Your task to perform on an android device: toggle improve location accuracy Image 0: 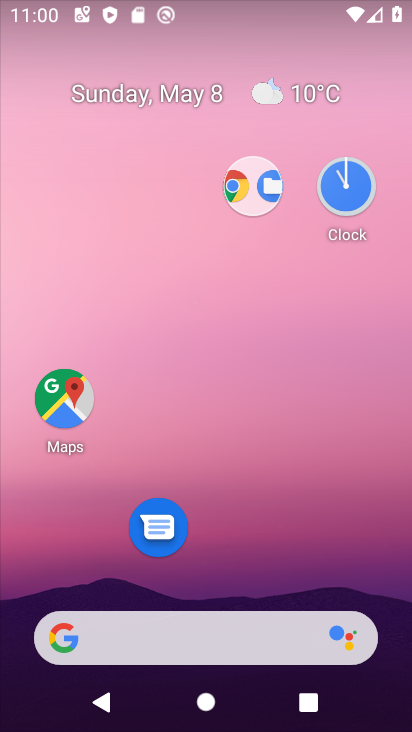
Step 0: drag from (199, 436) to (239, 70)
Your task to perform on an android device: toggle improve location accuracy Image 1: 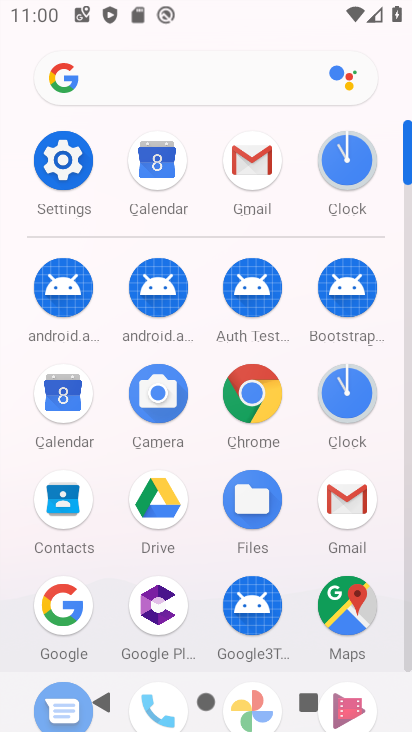
Step 1: drag from (181, 445) to (209, 134)
Your task to perform on an android device: toggle improve location accuracy Image 2: 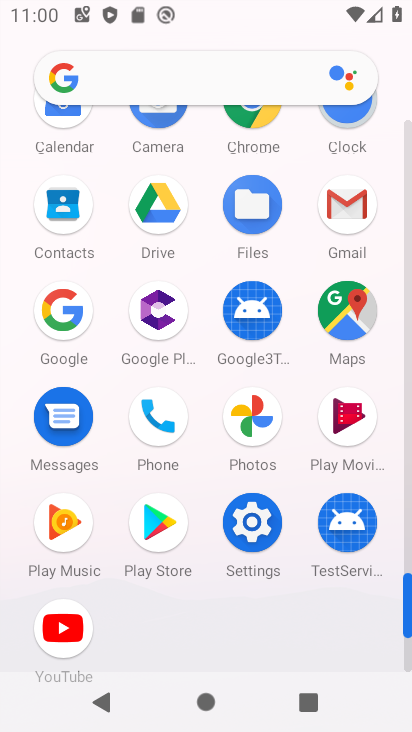
Step 2: click (336, 300)
Your task to perform on an android device: toggle improve location accuracy Image 3: 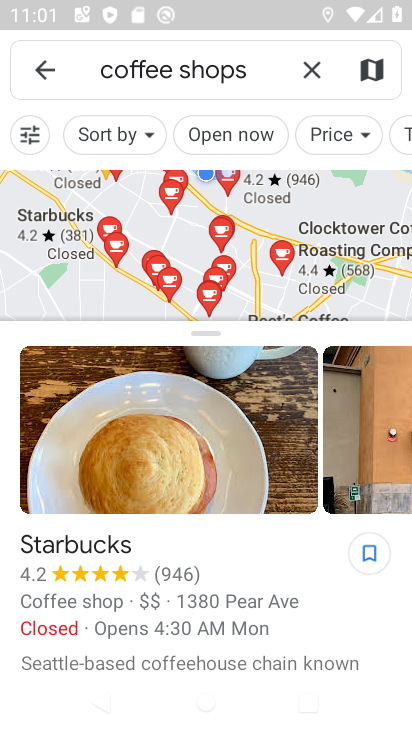
Step 3: click (40, 66)
Your task to perform on an android device: toggle improve location accuracy Image 4: 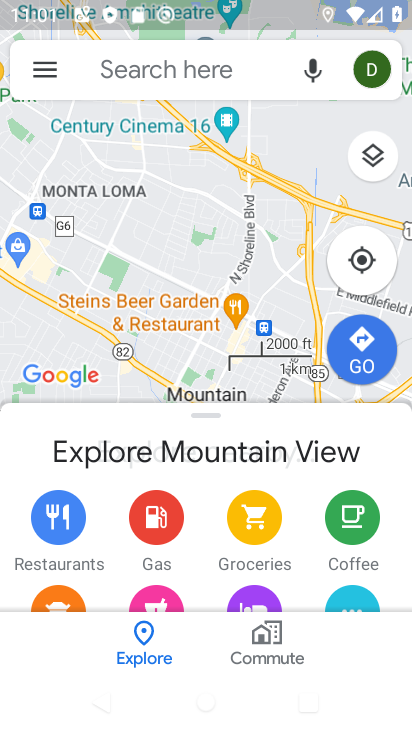
Step 4: click (40, 66)
Your task to perform on an android device: toggle improve location accuracy Image 5: 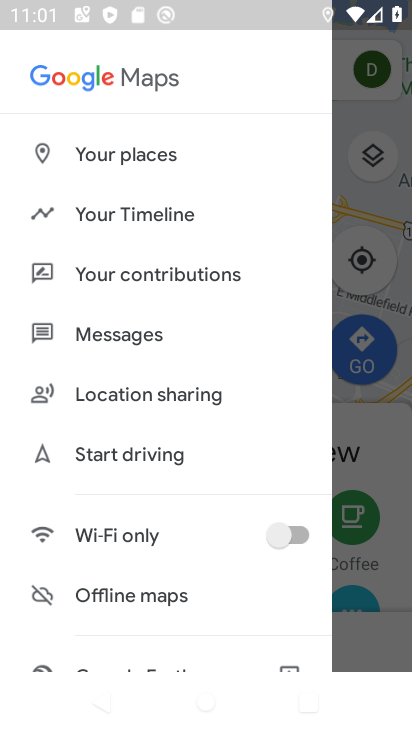
Step 5: drag from (178, 387) to (165, 188)
Your task to perform on an android device: toggle improve location accuracy Image 6: 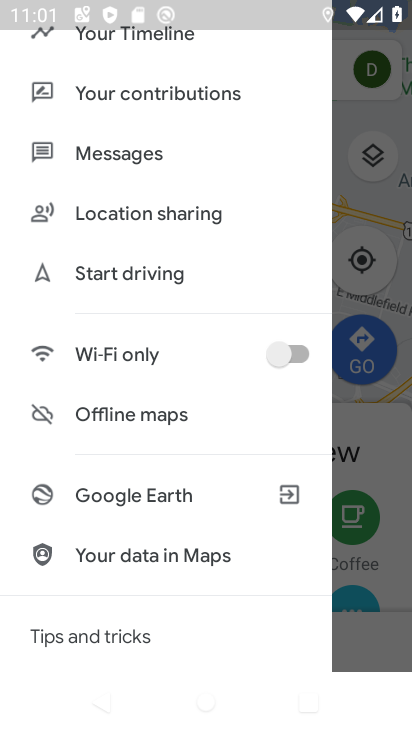
Step 6: drag from (190, 510) to (185, 171)
Your task to perform on an android device: toggle improve location accuracy Image 7: 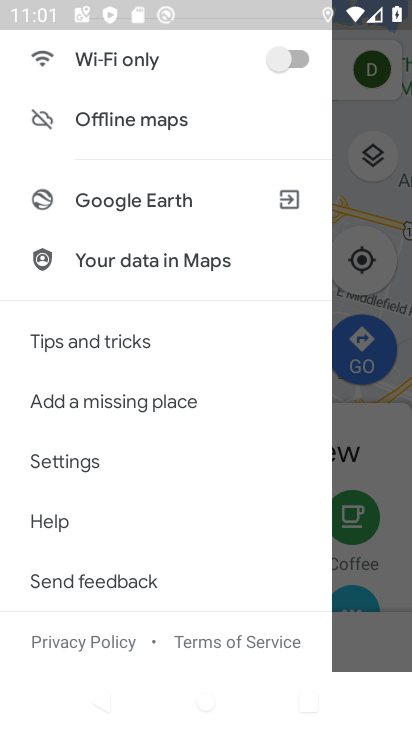
Step 7: drag from (159, 555) to (162, 54)
Your task to perform on an android device: toggle improve location accuracy Image 8: 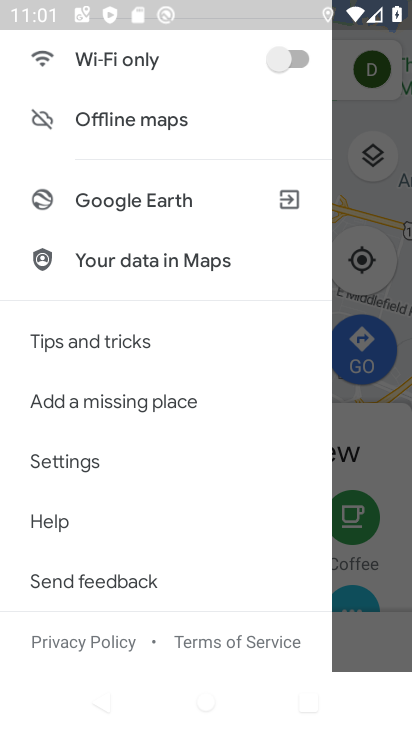
Step 8: click (178, 454)
Your task to perform on an android device: toggle improve location accuracy Image 9: 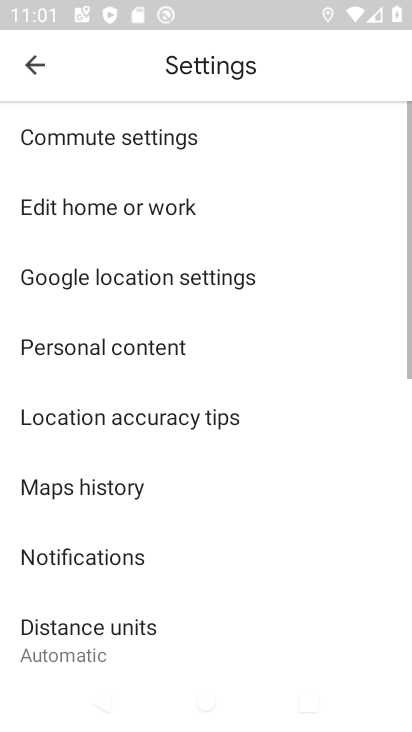
Step 9: drag from (180, 467) to (205, 108)
Your task to perform on an android device: toggle improve location accuracy Image 10: 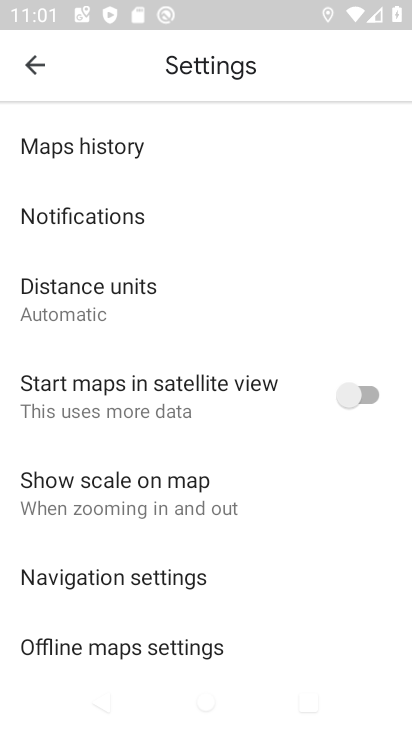
Step 10: drag from (241, 551) to (272, 133)
Your task to perform on an android device: toggle improve location accuracy Image 11: 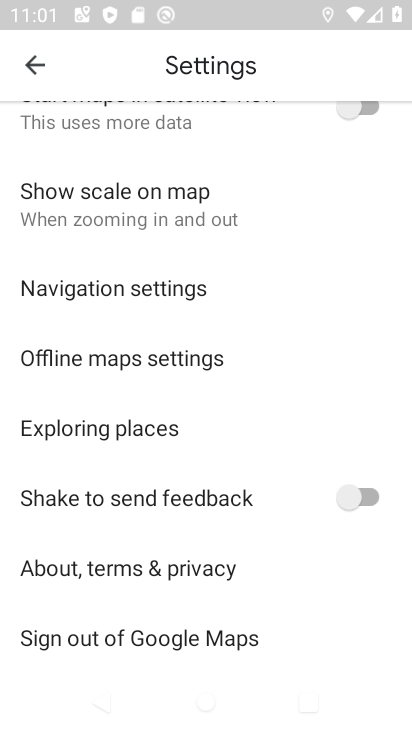
Step 11: drag from (245, 546) to (272, 3)
Your task to perform on an android device: toggle improve location accuracy Image 12: 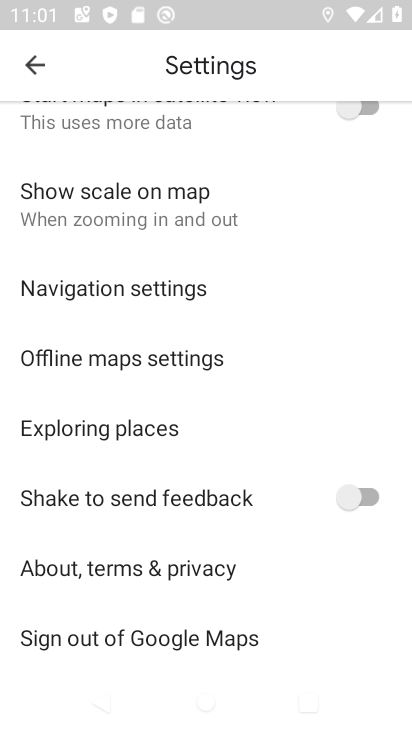
Step 12: click (32, 66)
Your task to perform on an android device: toggle improve location accuracy Image 13: 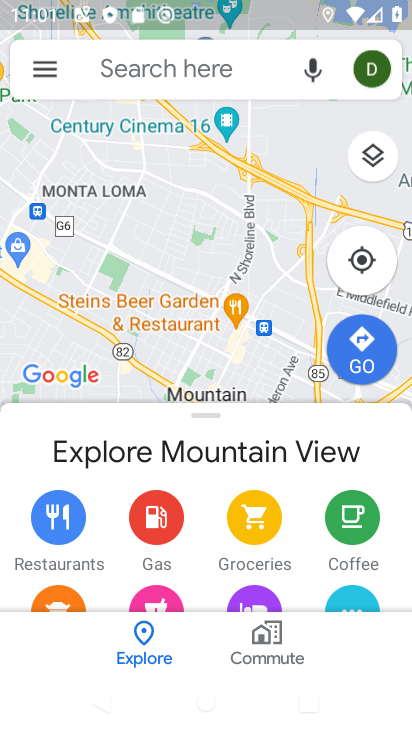
Step 13: click (32, 66)
Your task to perform on an android device: toggle improve location accuracy Image 14: 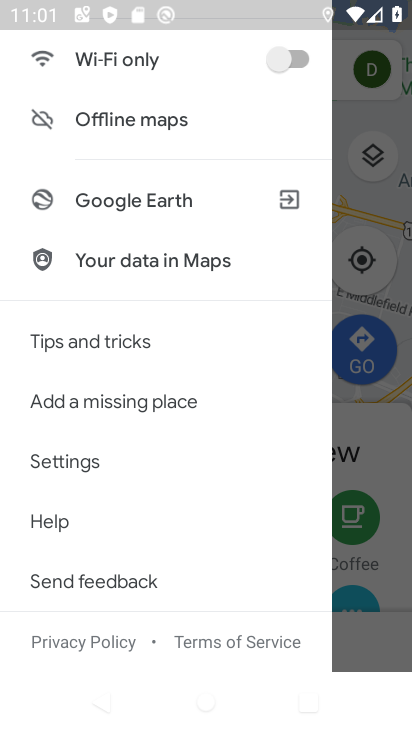
Step 14: press home button
Your task to perform on an android device: toggle improve location accuracy Image 15: 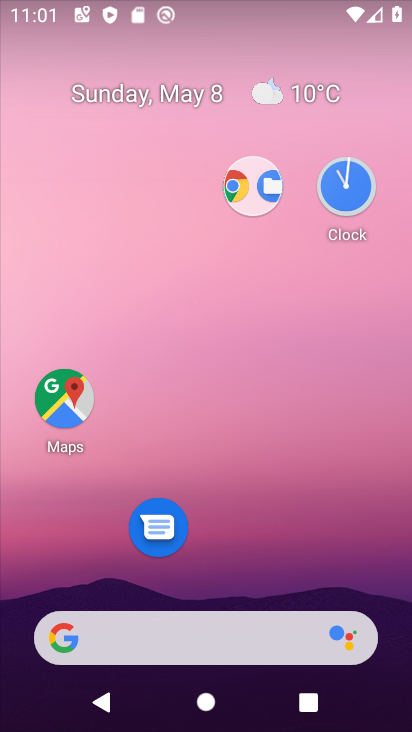
Step 15: drag from (260, 549) to (275, 57)
Your task to perform on an android device: toggle improve location accuracy Image 16: 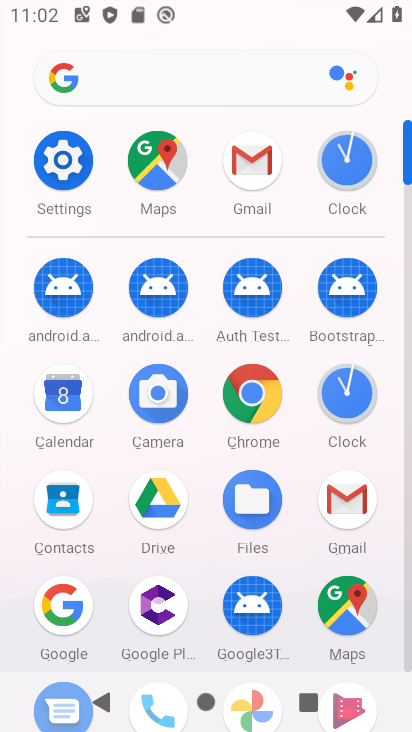
Step 16: click (65, 175)
Your task to perform on an android device: toggle improve location accuracy Image 17: 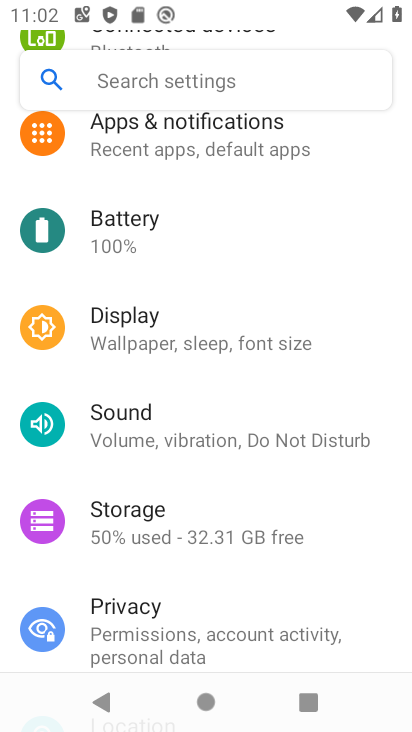
Step 17: drag from (166, 195) to (162, 159)
Your task to perform on an android device: toggle improve location accuracy Image 18: 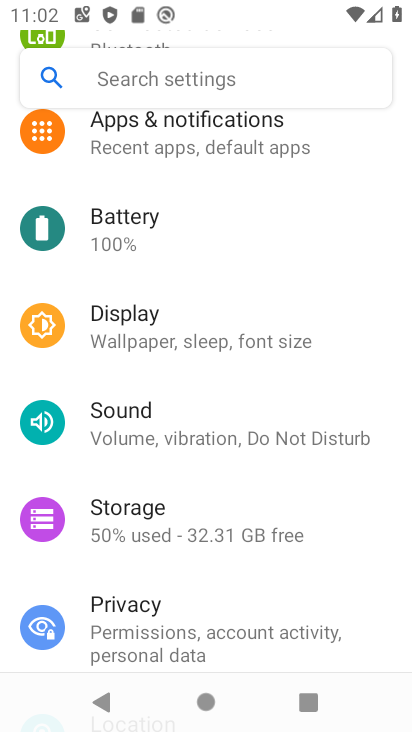
Step 18: drag from (162, 297) to (294, 724)
Your task to perform on an android device: toggle improve location accuracy Image 19: 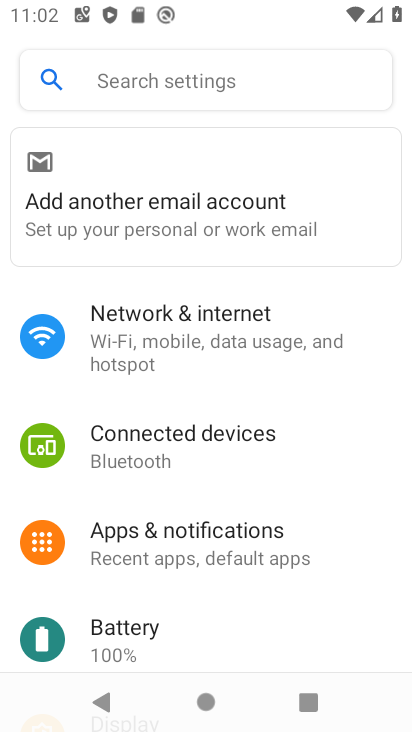
Step 19: drag from (196, 587) to (124, 53)
Your task to perform on an android device: toggle improve location accuracy Image 20: 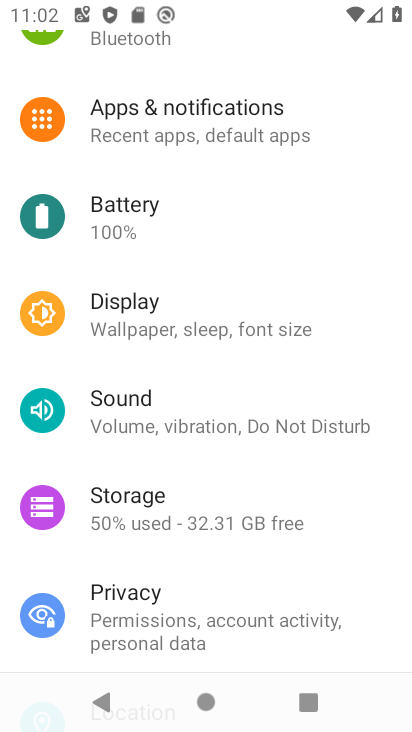
Step 20: drag from (198, 605) to (164, 0)
Your task to perform on an android device: toggle improve location accuracy Image 21: 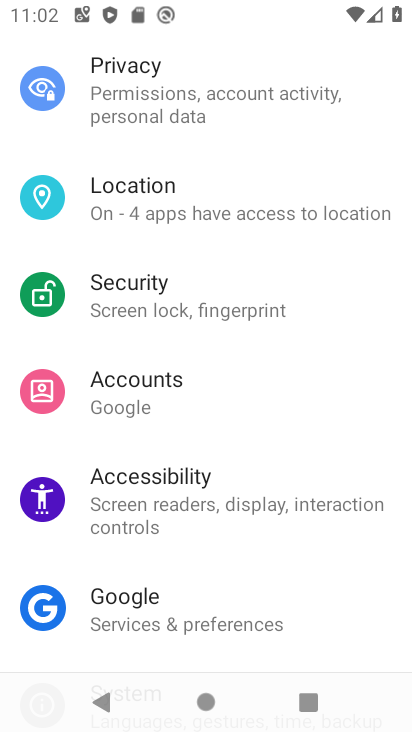
Step 21: click (109, 188)
Your task to perform on an android device: toggle improve location accuracy Image 22: 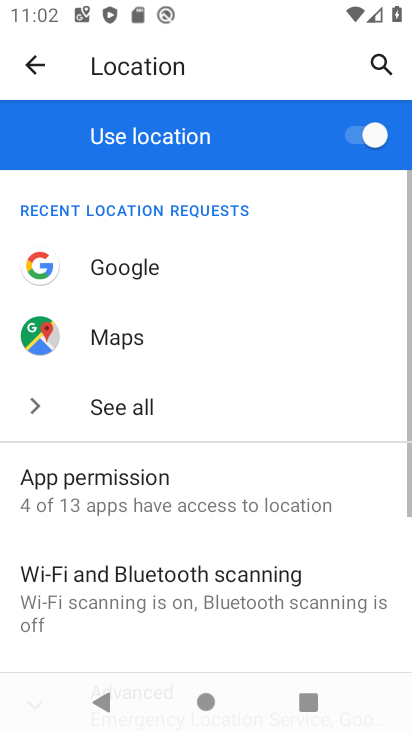
Step 22: drag from (189, 606) to (81, 74)
Your task to perform on an android device: toggle improve location accuracy Image 23: 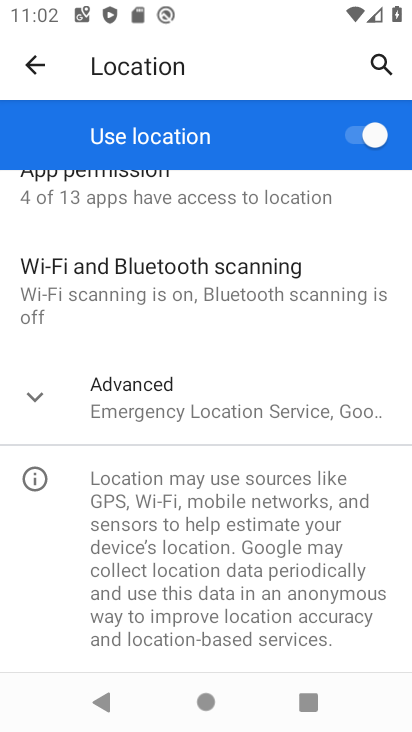
Step 23: click (141, 400)
Your task to perform on an android device: toggle improve location accuracy Image 24: 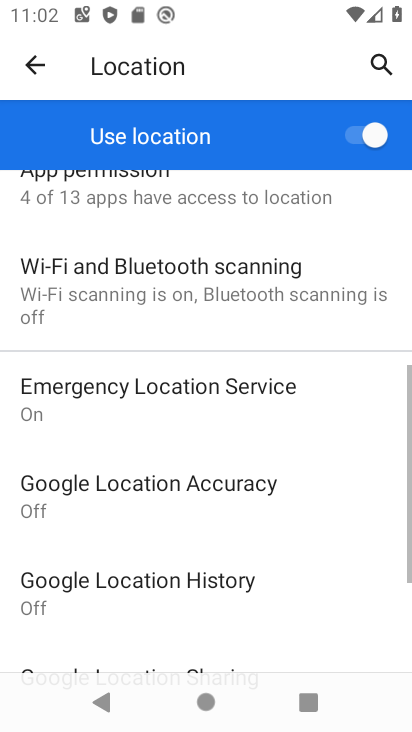
Step 24: drag from (200, 599) to (161, 298)
Your task to perform on an android device: toggle improve location accuracy Image 25: 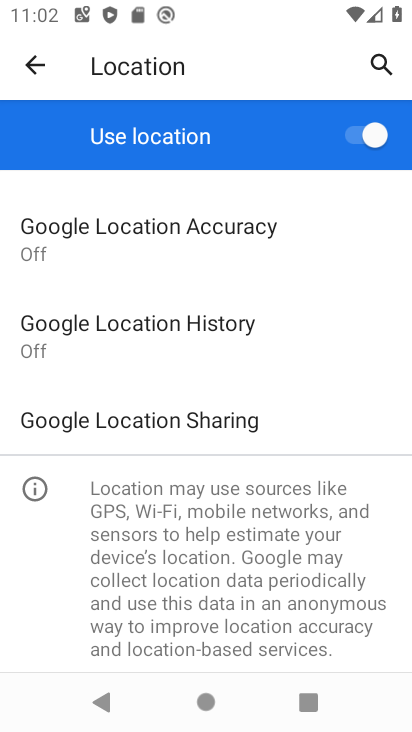
Step 25: click (152, 246)
Your task to perform on an android device: toggle improve location accuracy Image 26: 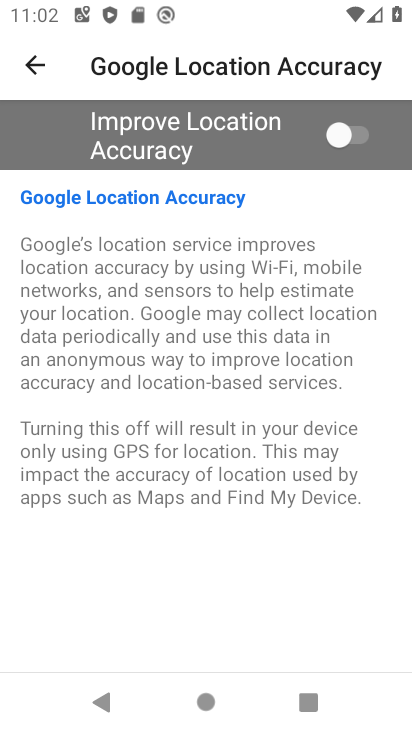
Step 26: click (341, 142)
Your task to perform on an android device: toggle improve location accuracy Image 27: 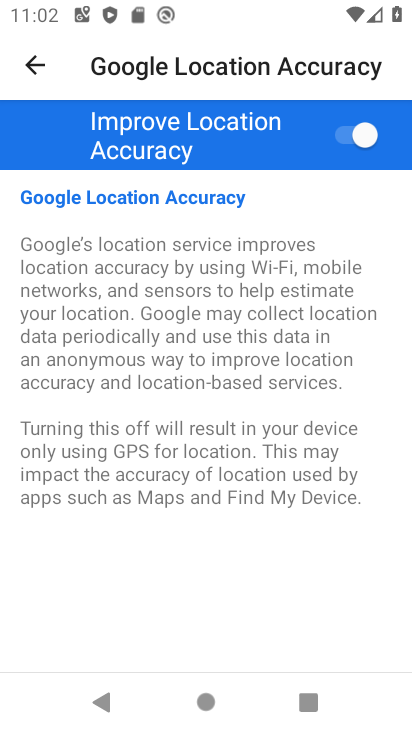
Step 27: task complete